Your task to perform on an android device: uninstall "Google Chrome" Image 0: 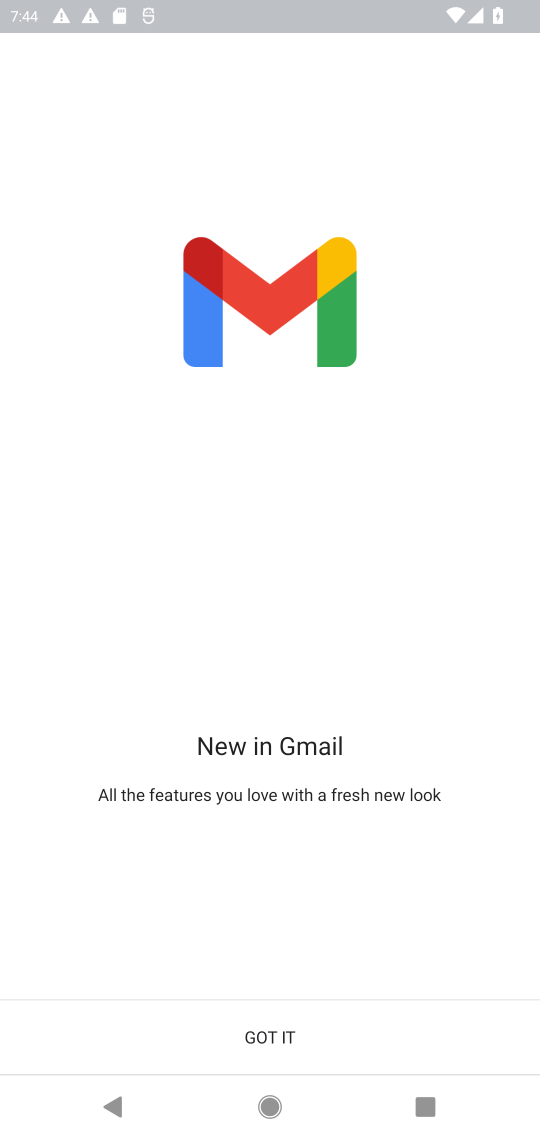
Step 0: press home button
Your task to perform on an android device: uninstall "Google Chrome" Image 1: 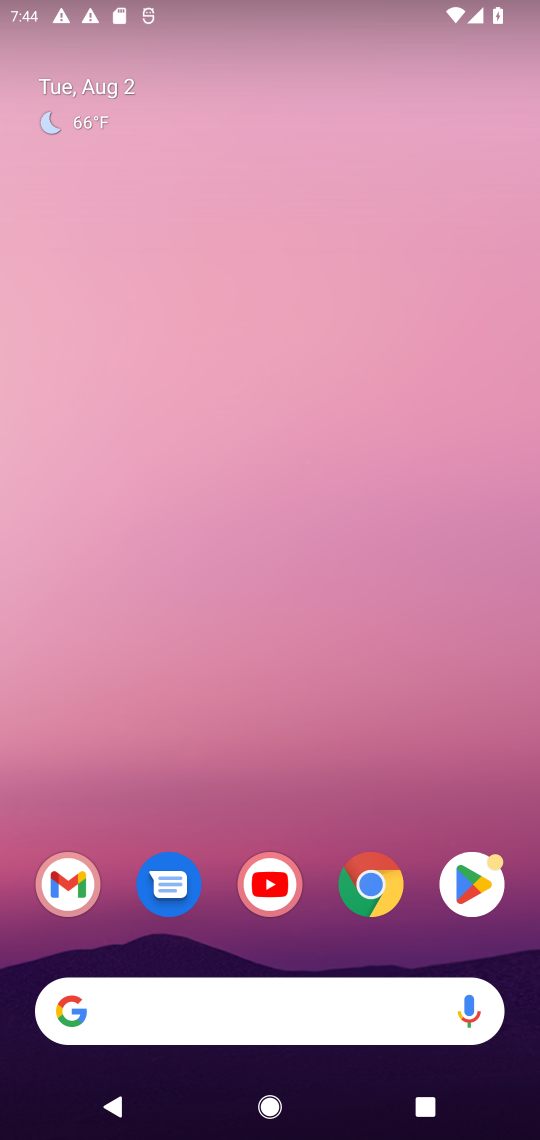
Step 1: click (482, 867)
Your task to perform on an android device: uninstall "Google Chrome" Image 2: 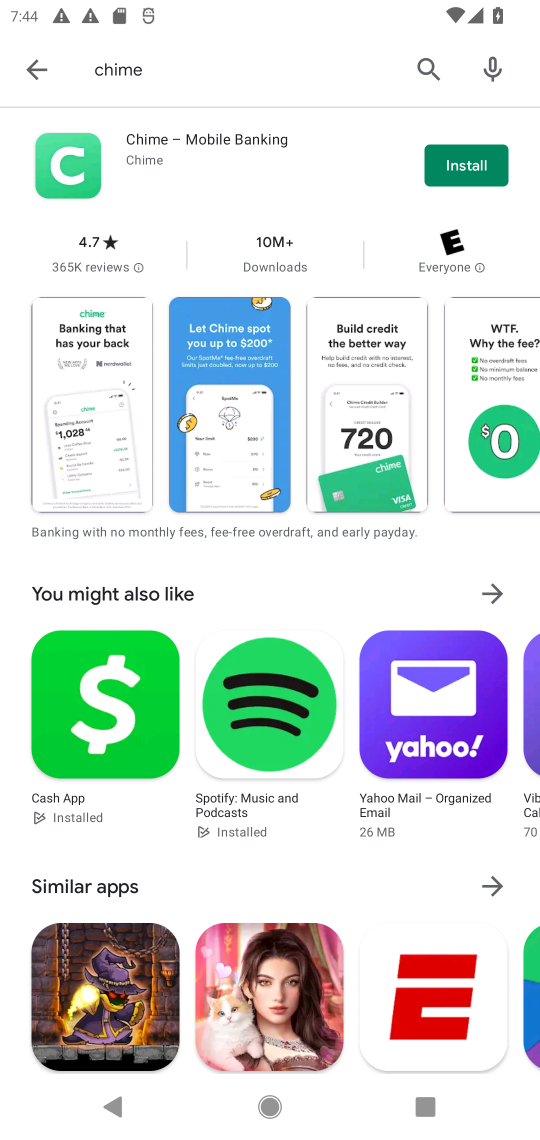
Step 2: click (412, 71)
Your task to perform on an android device: uninstall "Google Chrome" Image 3: 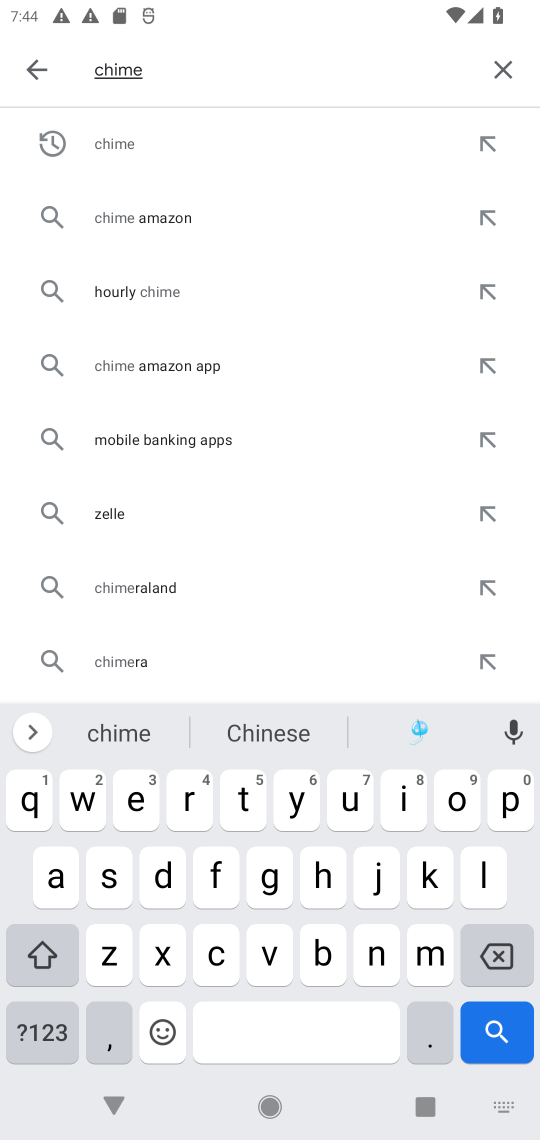
Step 3: click (503, 69)
Your task to perform on an android device: uninstall "Google Chrome" Image 4: 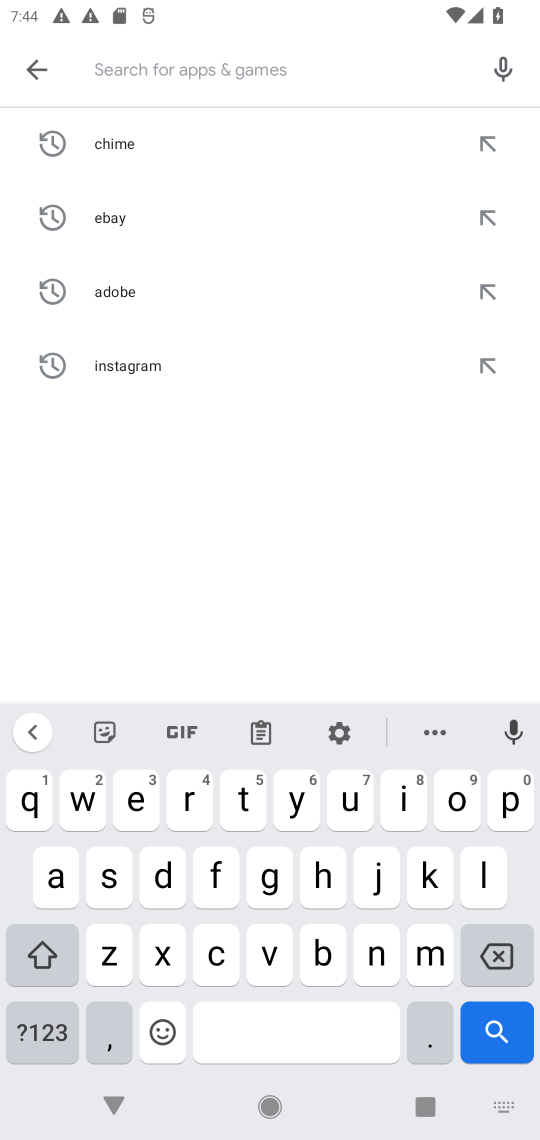
Step 4: click (216, 960)
Your task to perform on an android device: uninstall "Google Chrome" Image 5: 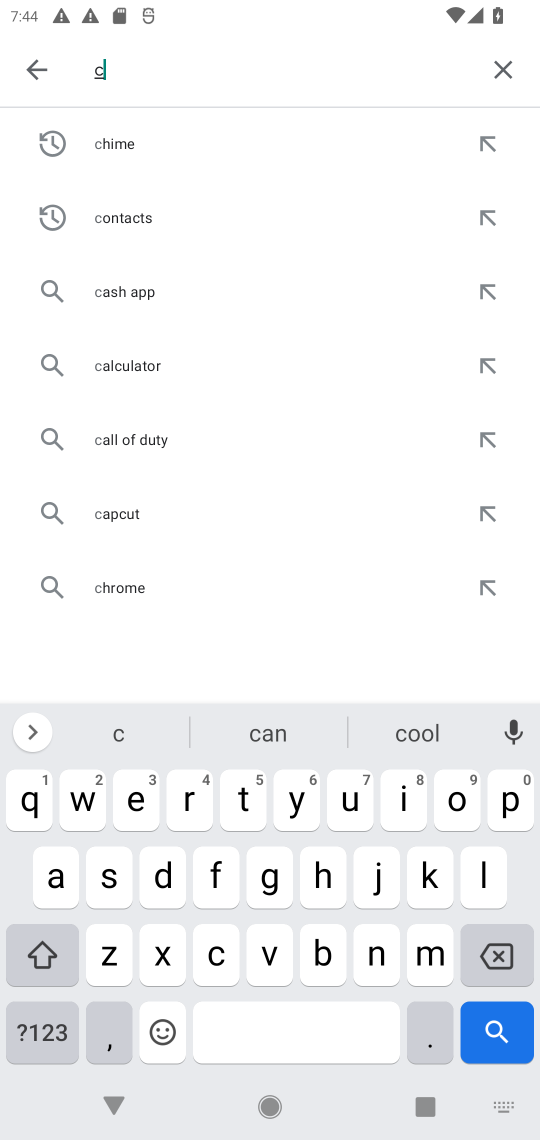
Step 5: click (318, 883)
Your task to perform on an android device: uninstall "Google Chrome" Image 6: 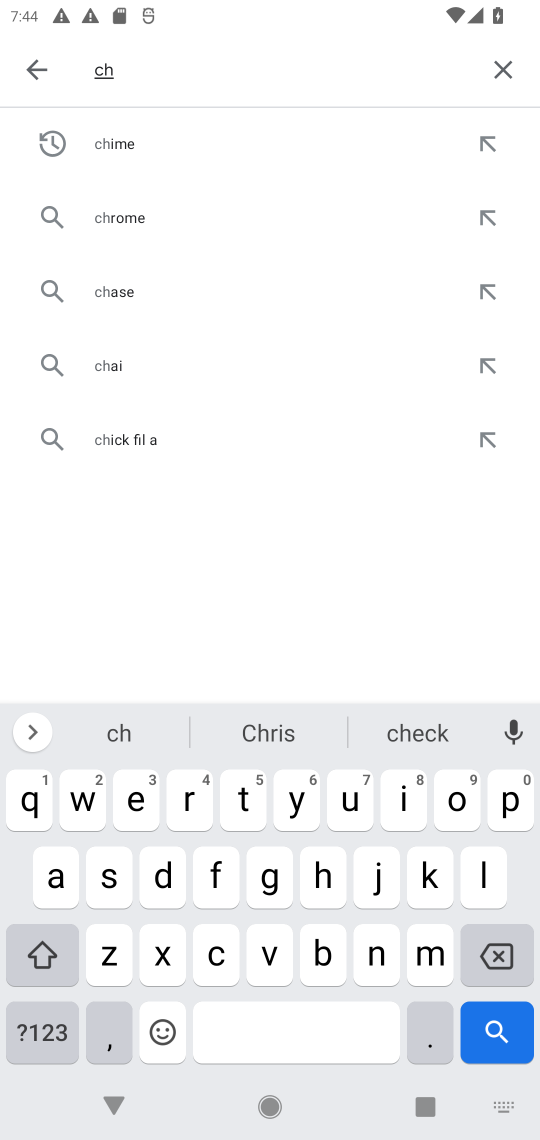
Step 6: click (183, 804)
Your task to perform on an android device: uninstall "Google Chrome" Image 7: 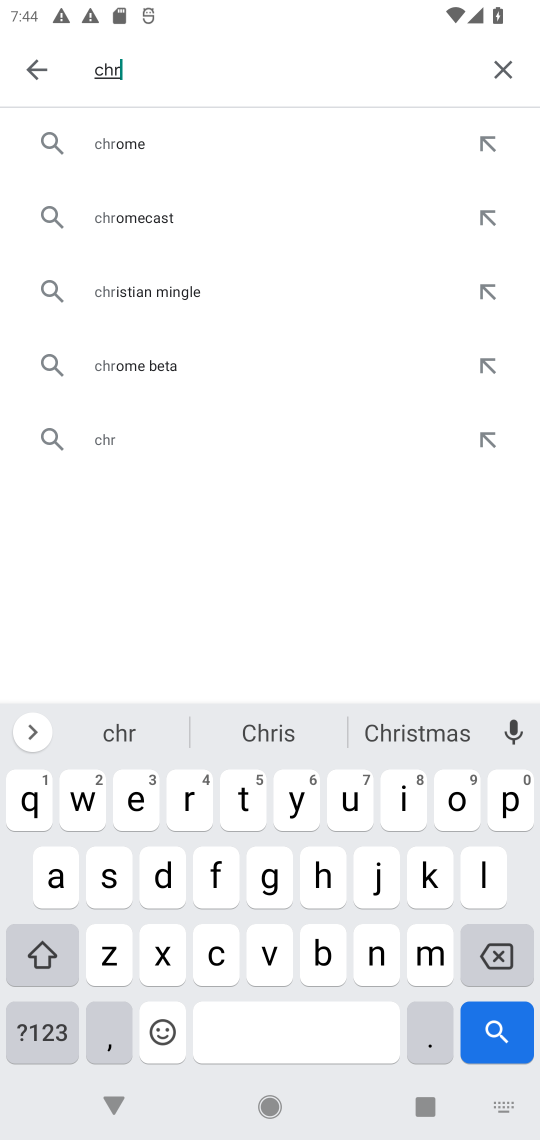
Step 7: click (450, 806)
Your task to perform on an android device: uninstall "Google Chrome" Image 8: 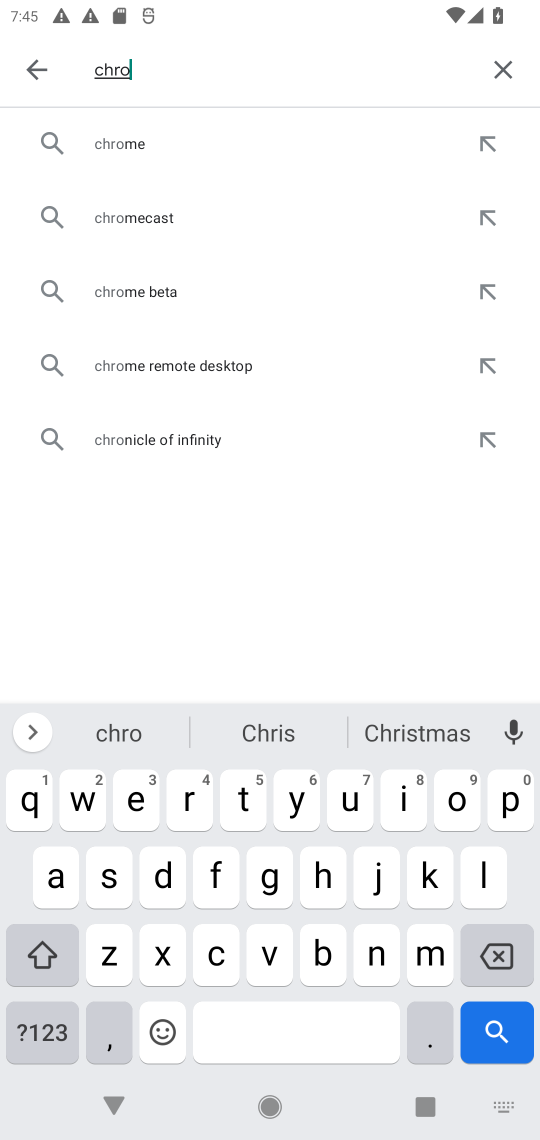
Step 8: click (141, 143)
Your task to perform on an android device: uninstall "Google Chrome" Image 9: 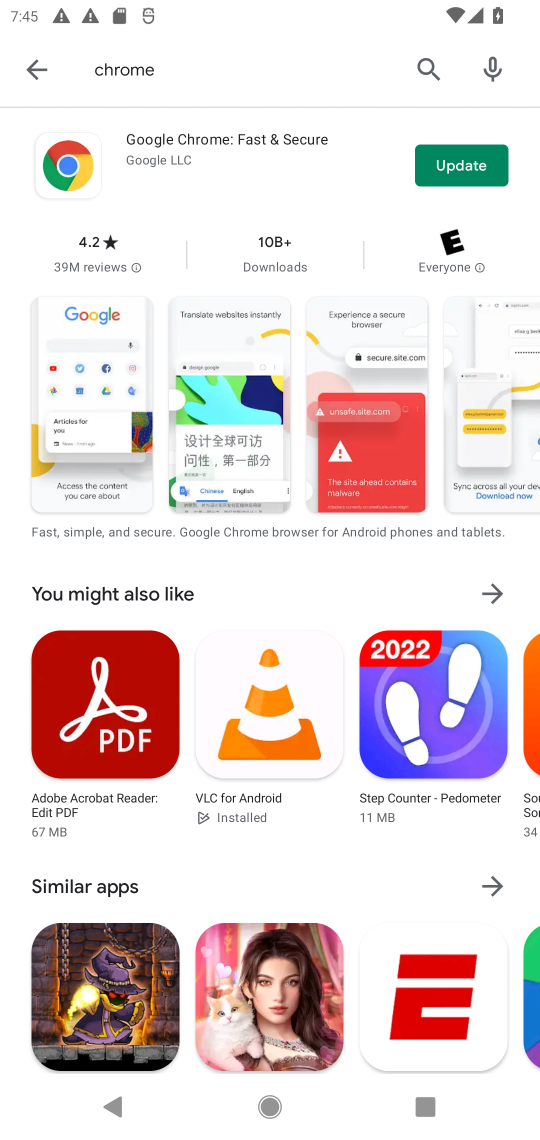
Step 9: click (83, 166)
Your task to perform on an android device: uninstall "Google Chrome" Image 10: 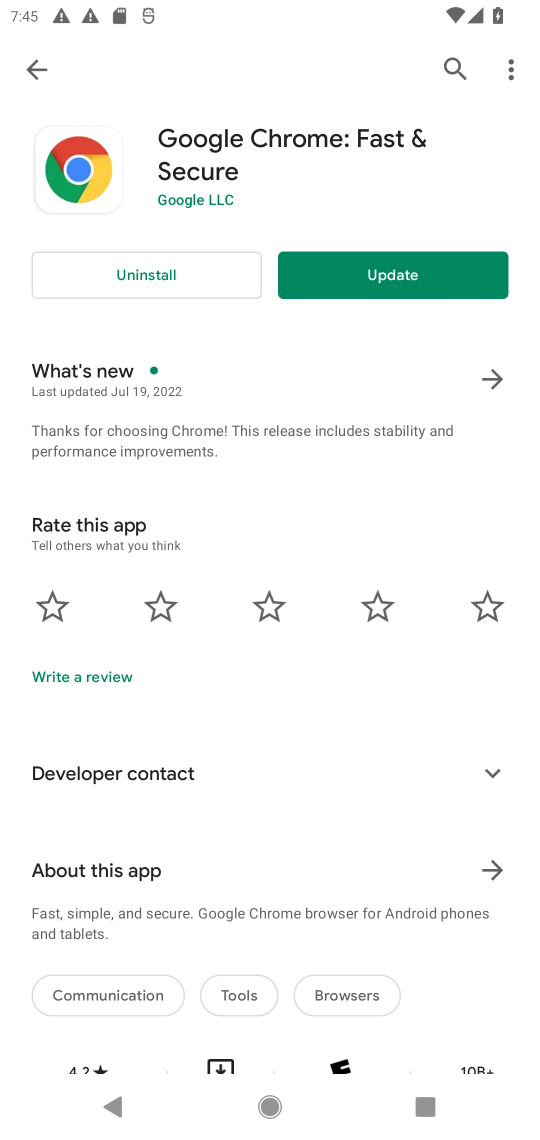
Step 10: click (136, 275)
Your task to perform on an android device: uninstall "Google Chrome" Image 11: 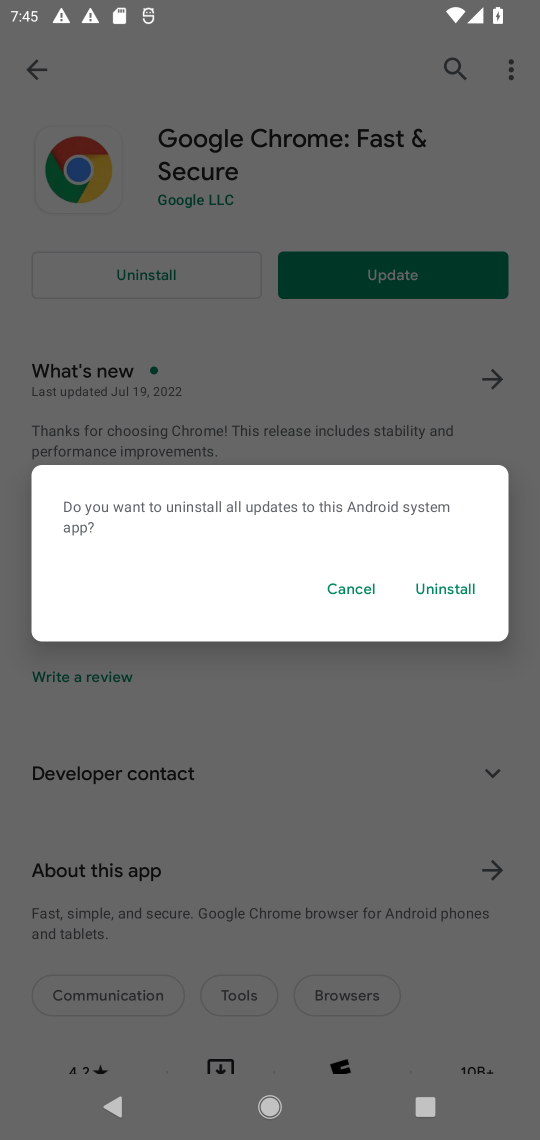
Step 11: click (450, 594)
Your task to perform on an android device: uninstall "Google Chrome" Image 12: 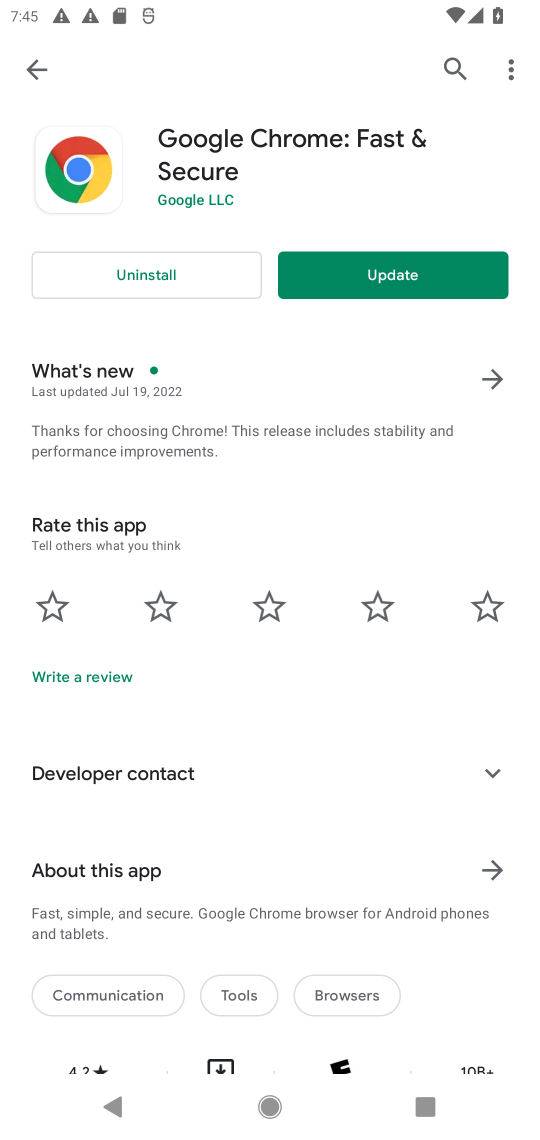
Step 12: click (166, 280)
Your task to perform on an android device: uninstall "Google Chrome" Image 13: 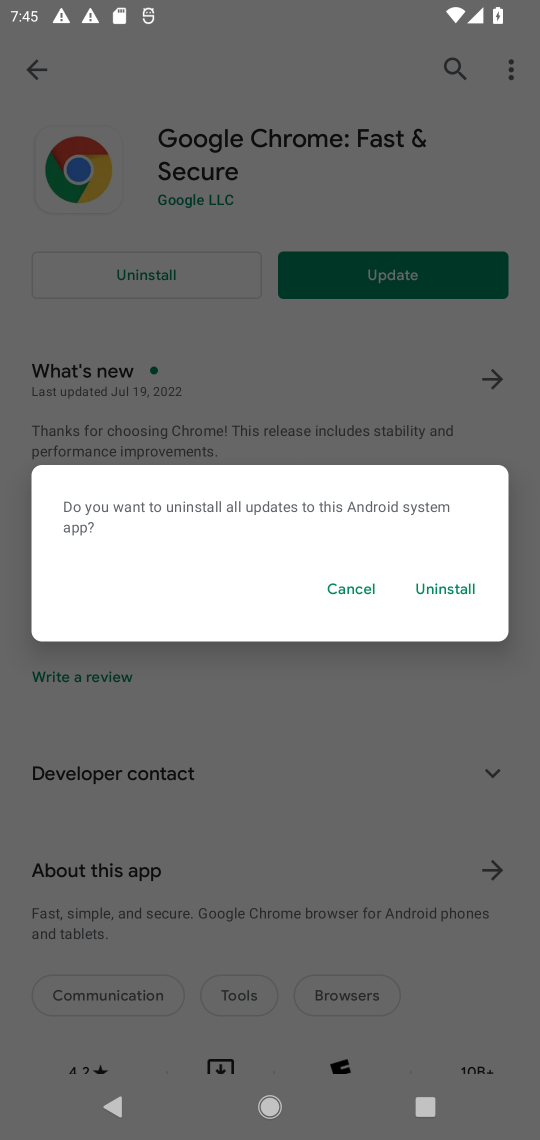
Step 13: click (474, 588)
Your task to perform on an android device: uninstall "Google Chrome" Image 14: 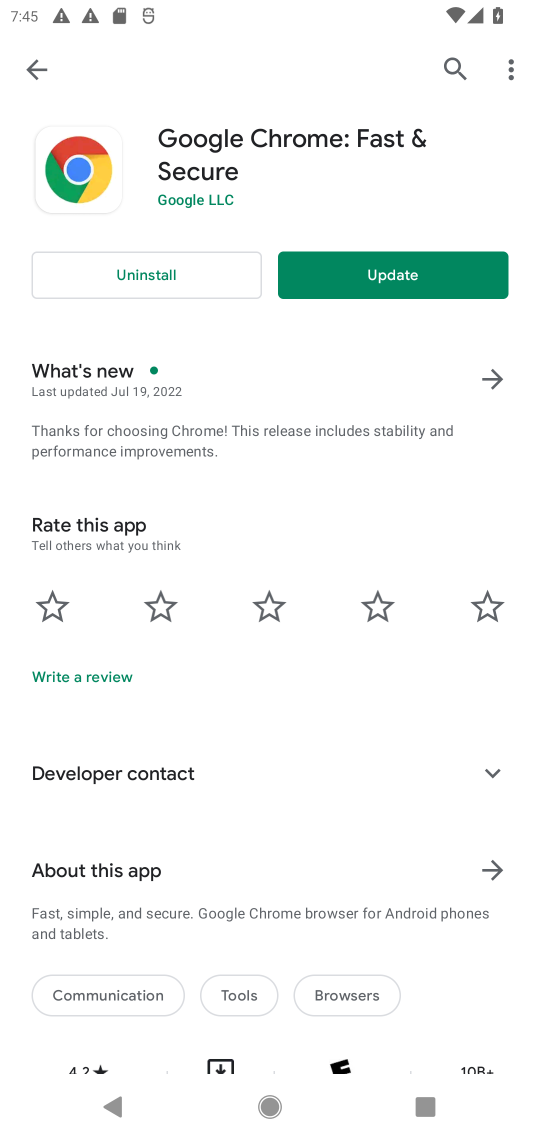
Step 14: click (129, 277)
Your task to perform on an android device: uninstall "Google Chrome" Image 15: 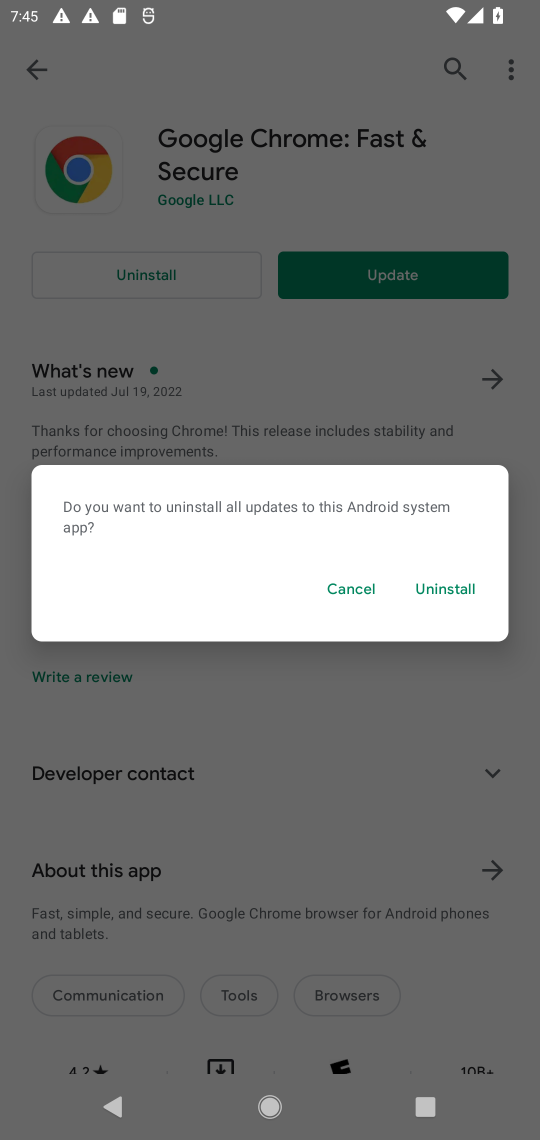
Step 15: click (450, 593)
Your task to perform on an android device: uninstall "Google Chrome" Image 16: 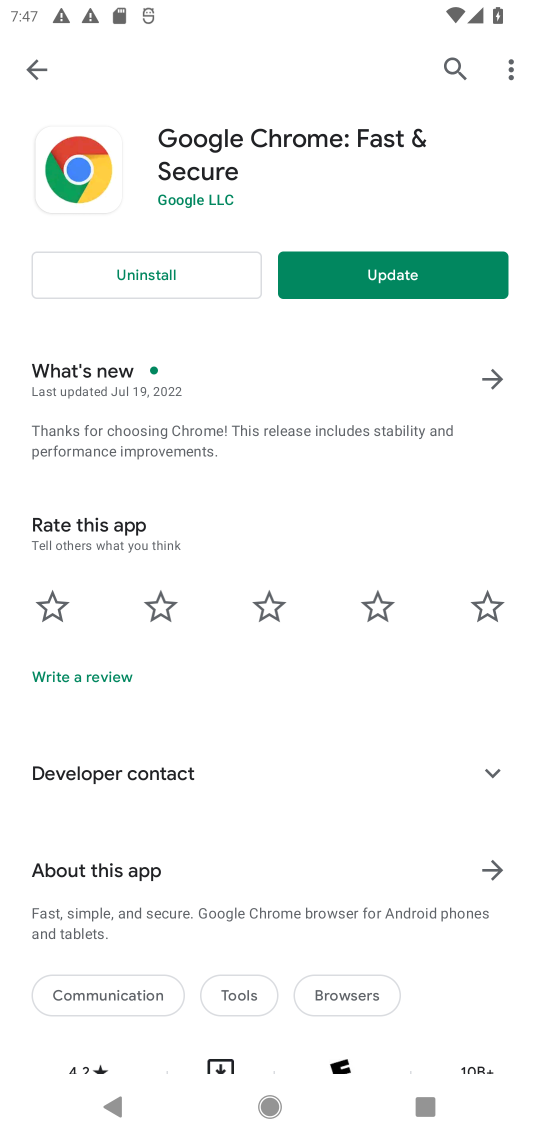
Step 16: task complete